Your task to perform on an android device: Go to CNN.com Image 0: 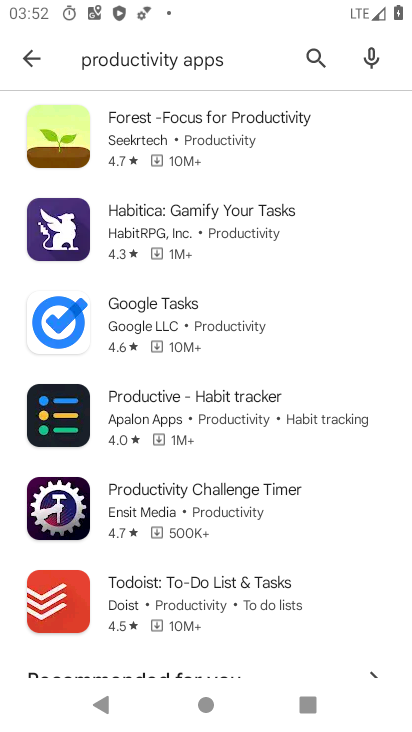
Step 0: press home button
Your task to perform on an android device: Go to CNN.com Image 1: 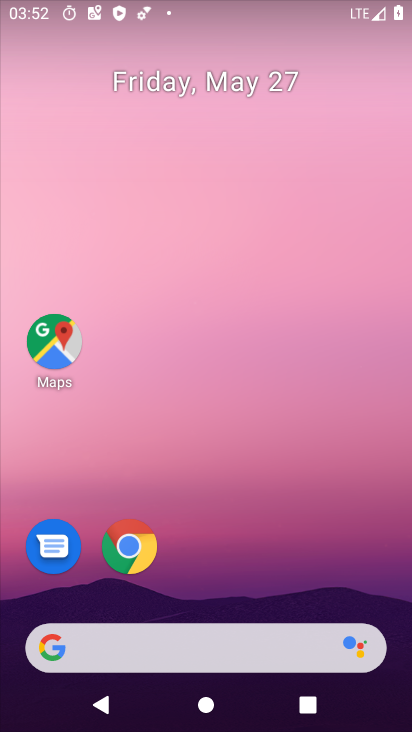
Step 1: drag from (386, 678) to (344, 224)
Your task to perform on an android device: Go to CNN.com Image 2: 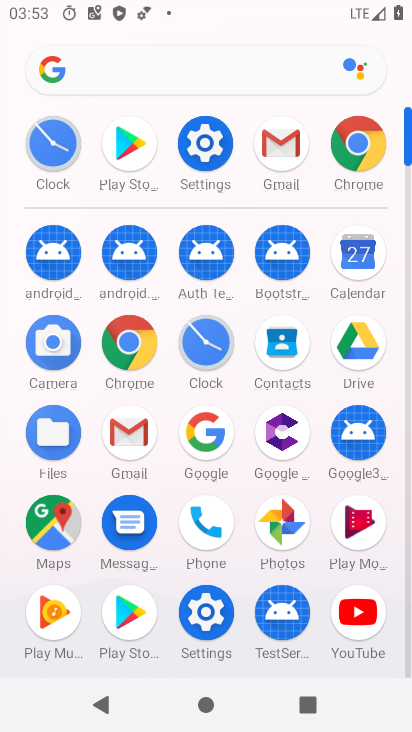
Step 2: click (354, 147)
Your task to perform on an android device: Go to CNN.com Image 3: 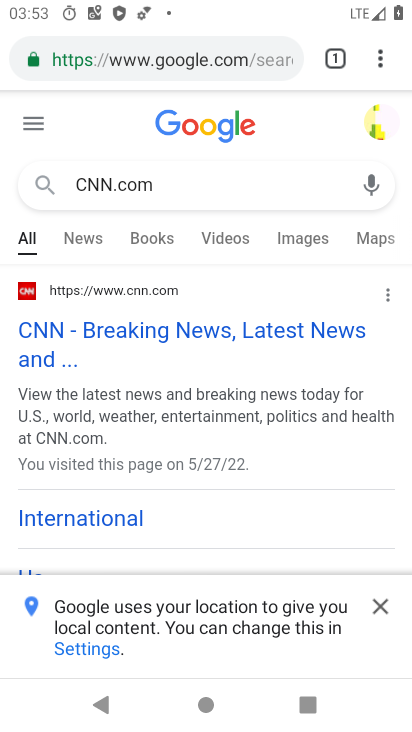
Step 3: task complete